Your task to perform on an android device: Open Google Image 0: 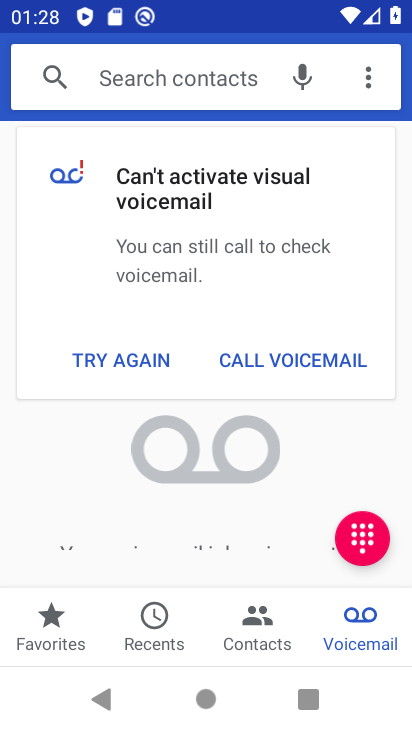
Step 0: press home button
Your task to perform on an android device: Open Google Image 1: 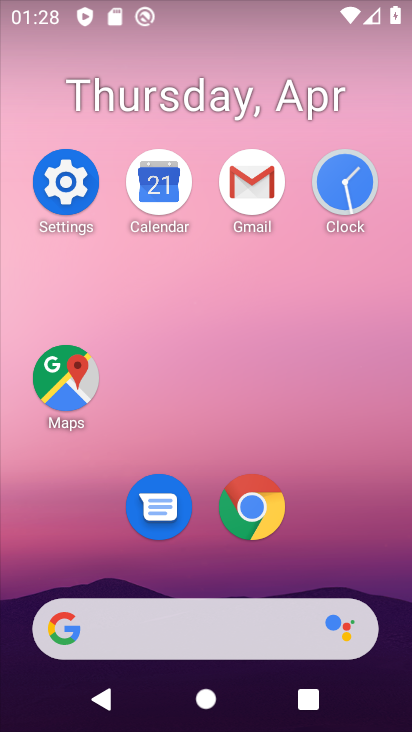
Step 1: drag from (203, 373) to (237, 28)
Your task to perform on an android device: Open Google Image 2: 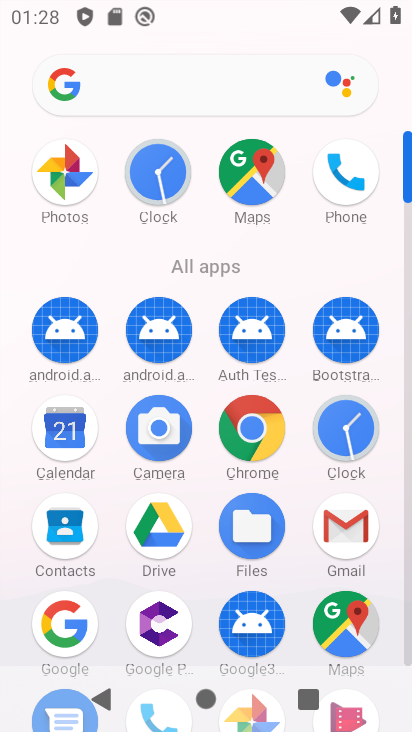
Step 2: drag from (73, 615) to (147, 293)
Your task to perform on an android device: Open Google Image 3: 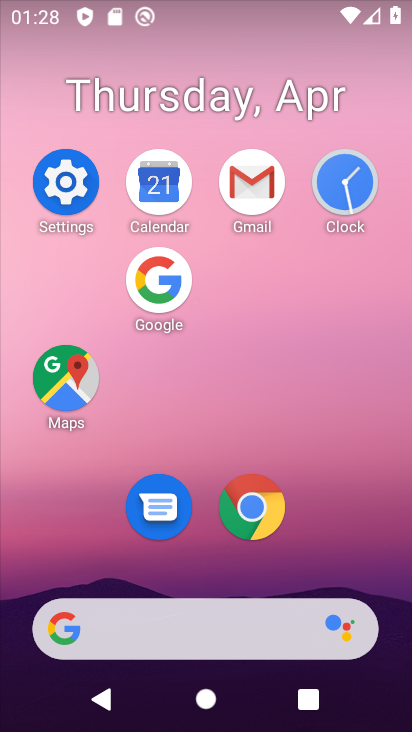
Step 3: click (174, 273)
Your task to perform on an android device: Open Google Image 4: 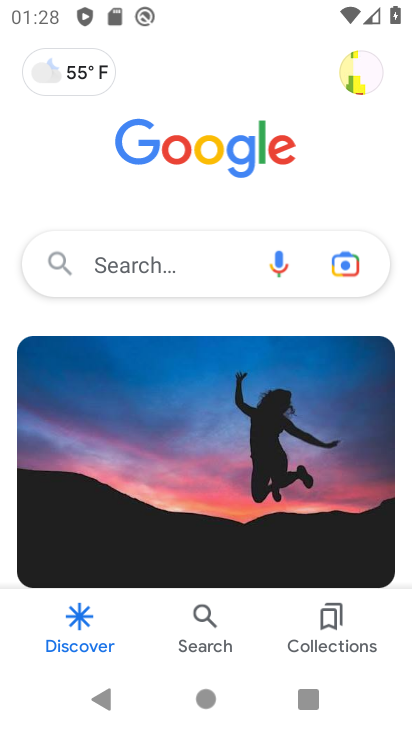
Step 4: task complete